Your task to perform on an android device: add a label to a message in the gmail app Image 0: 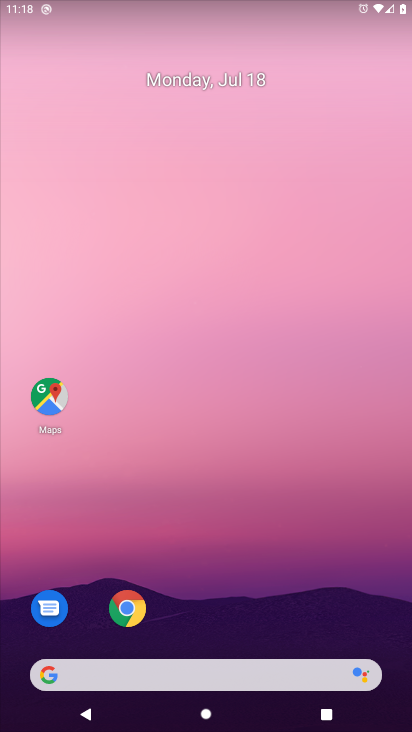
Step 0: drag from (40, 666) to (156, 267)
Your task to perform on an android device: add a label to a message in the gmail app Image 1: 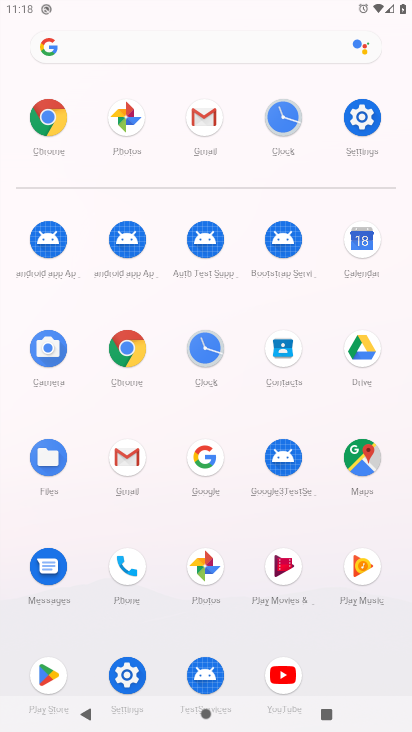
Step 1: click (128, 451)
Your task to perform on an android device: add a label to a message in the gmail app Image 2: 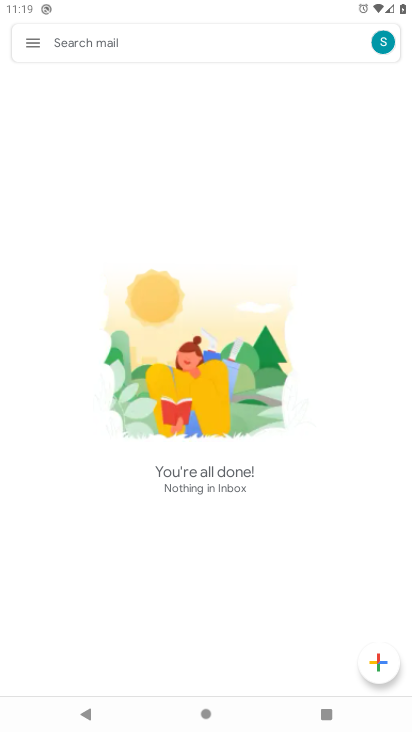
Step 2: click (32, 33)
Your task to perform on an android device: add a label to a message in the gmail app Image 3: 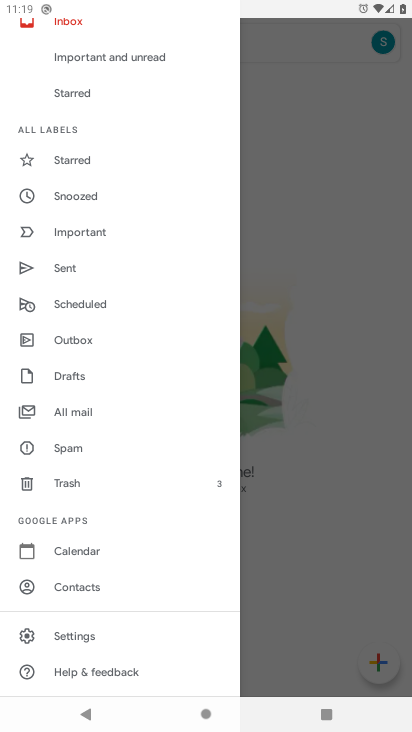
Step 3: click (75, 26)
Your task to perform on an android device: add a label to a message in the gmail app Image 4: 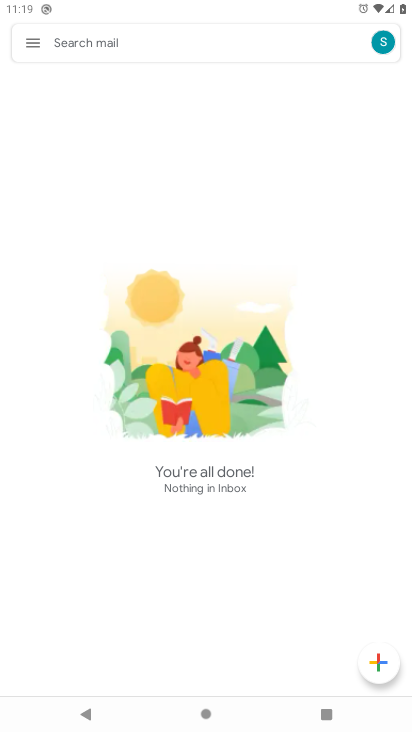
Step 4: task complete